Your task to perform on an android device: install app "Adobe Acrobat Reader" Image 0: 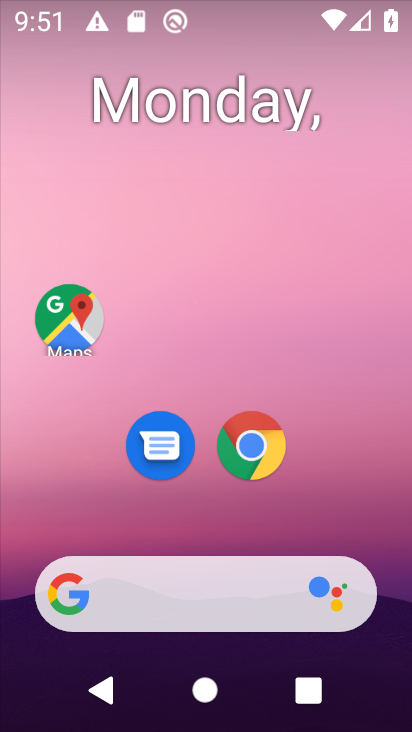
Step 0: drag from (401, 591) to (114, 10)
Your task to perform on an android device: install app "Adobe Acrobat Reader" Image 1: 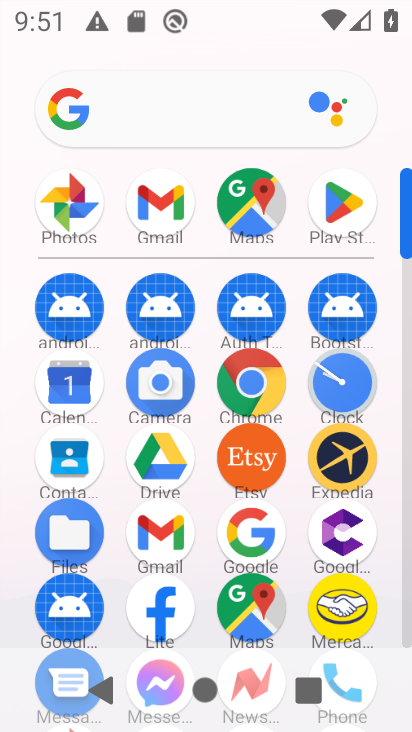
Step 1: click (336, 219)
Your task to perform on an android device: install app "Adobe Acrobat Reader" Image 2: 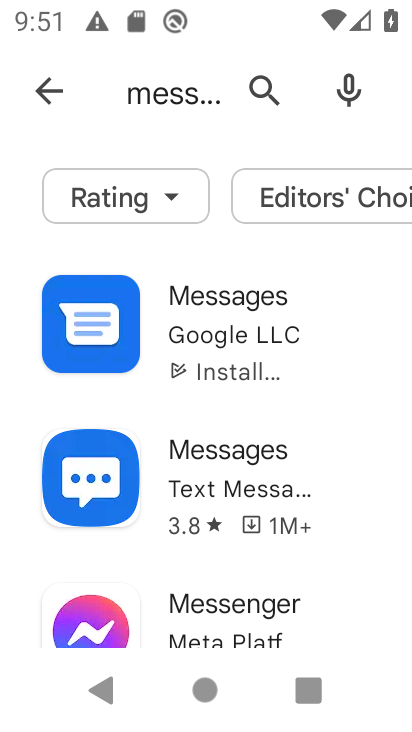
Step 2: press back button
Your task to perform on an android device: install app "Adobe Acrobat Reader" Image 3: 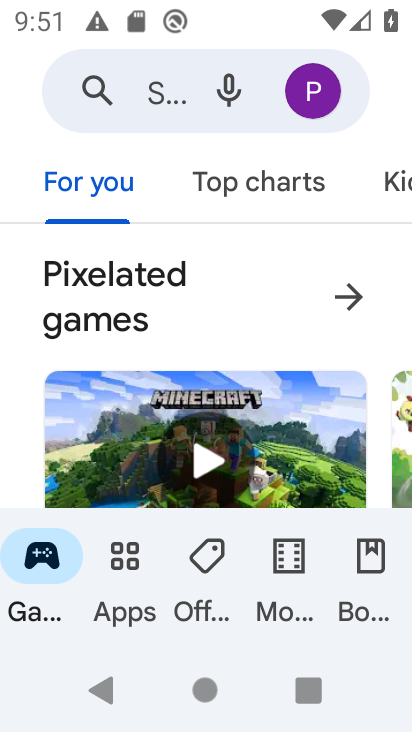
Step 3: click (159, 88)
Your task to perform on an android device: install app "Adobe Acrobat Reader" Image 4: 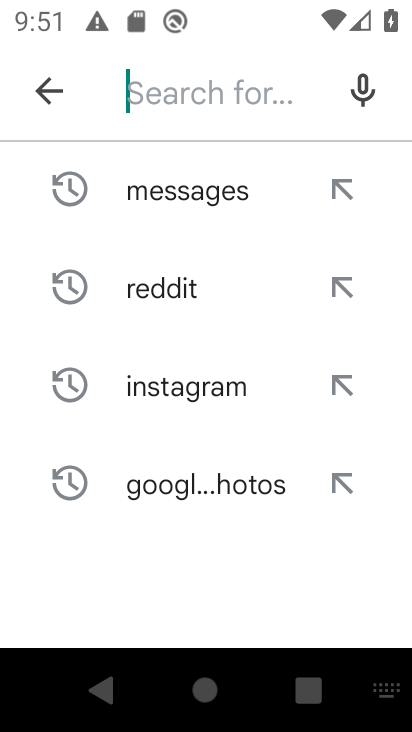
Step 4: type "Adobe Acrobat Reader"
Your task to perform on an android device: install app "Adobe Acrobat Reader" Image 5: 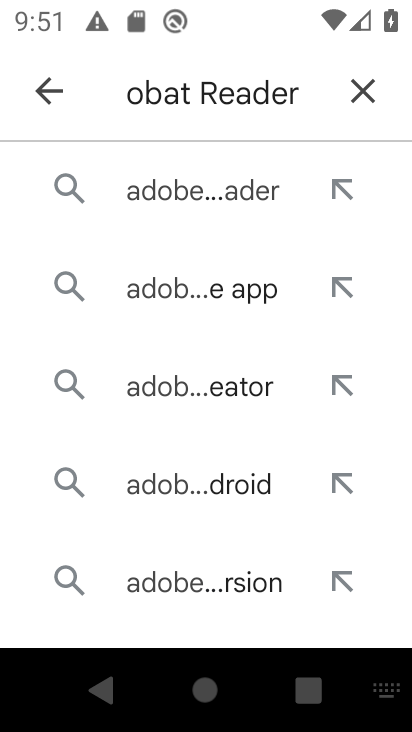
Step 5: click (242, 210)
Your task to perform on an android device: install app "Adobe Acrobat Reader" Image 6: 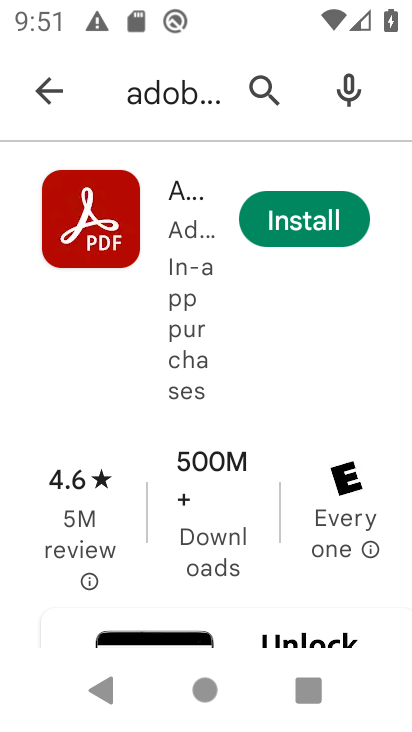
Step 6: click (331, 211)
Your task to perform on an android device: install app "Adobe Acrobat Reader" Image 7: 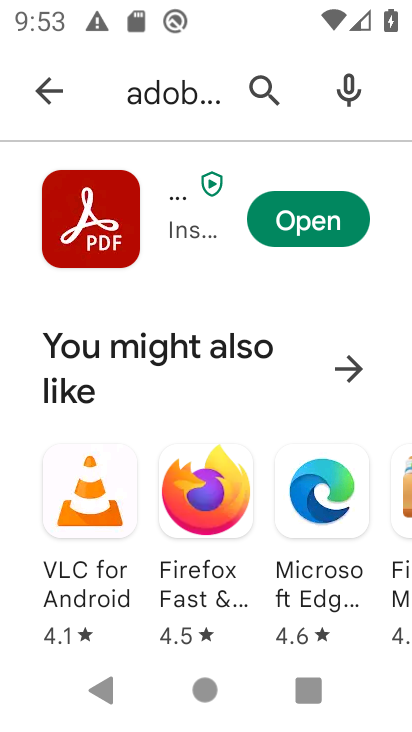
Step 7: task complete